Your task to perform on an android device: move a message to another label in the gmail app Image 0: 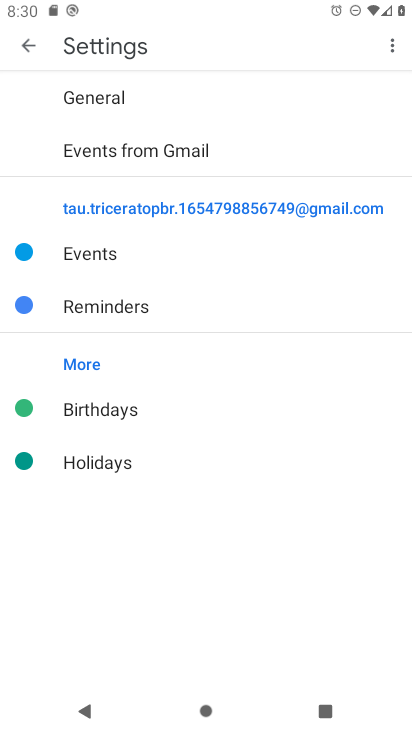
Step 0: press home button
Your task to perform on an android device: move a message to another label in the gmail app Image 1: 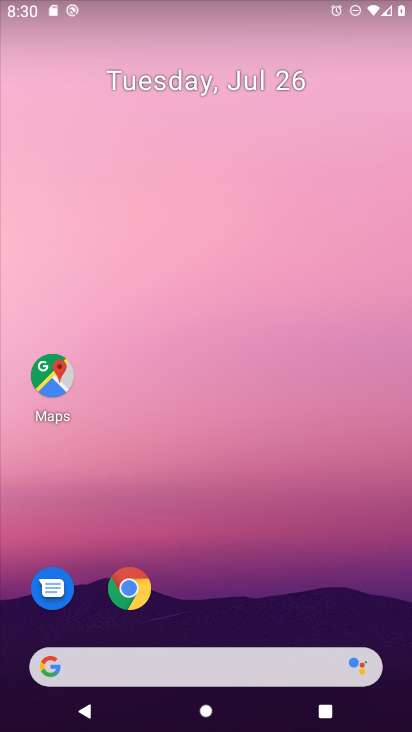
Step 1: drag from (227, 617) to (217, 213)
Your task to perform on an android device: move a message to another label in the gmail app Image 2: 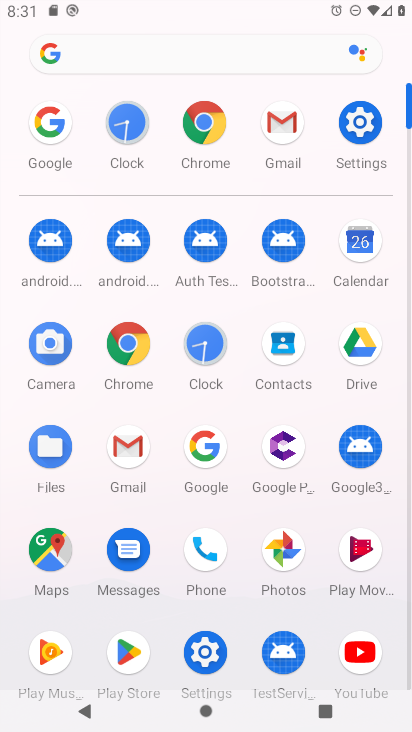
Step 2: click (131, 478)
Your task to perform on an android device: move a message to another label in the gmail app Image 3: 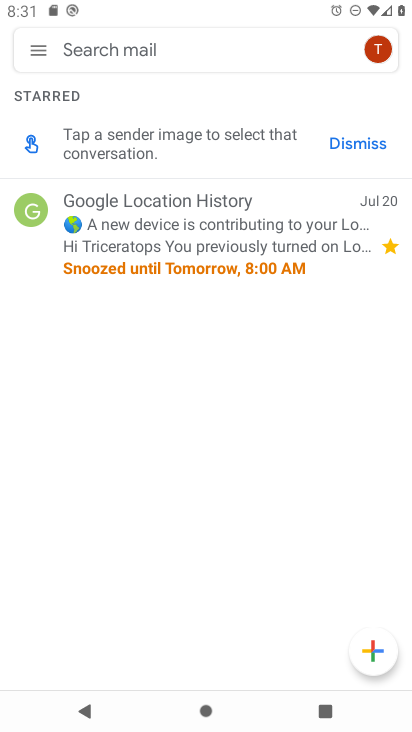
Step 3: click (221, 252)
Your task to perform on an android device: move a message to another label in the gmail app Image 4: 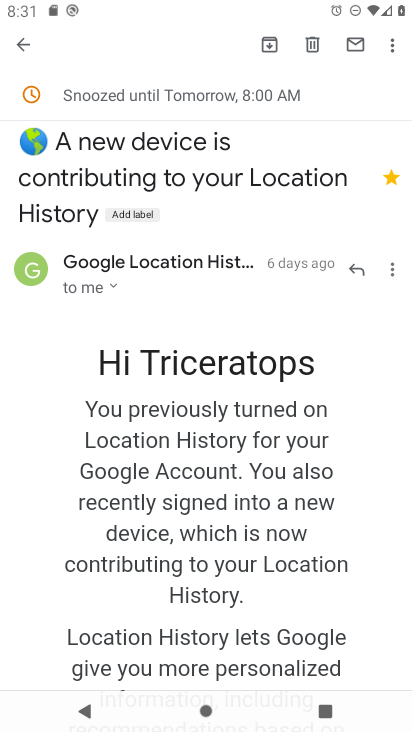
Step 4: click (395, 46)
Your task to perform on an android device: move a message to another label in the gmail app Image 5: 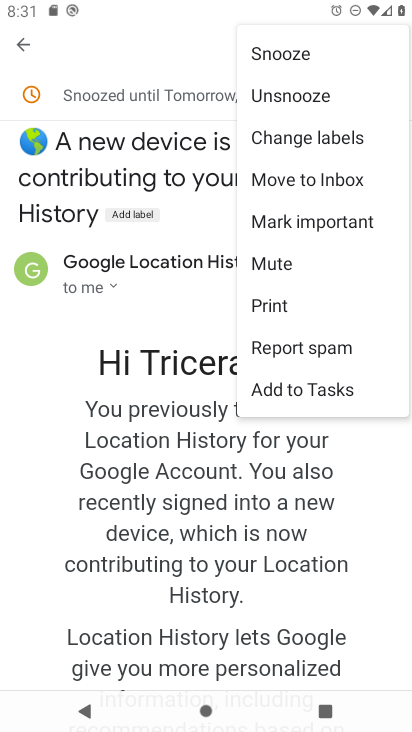
Step 5: click (318, 129)
Your task to perform on an android device: move a message to another label in the gmail app Image 6: 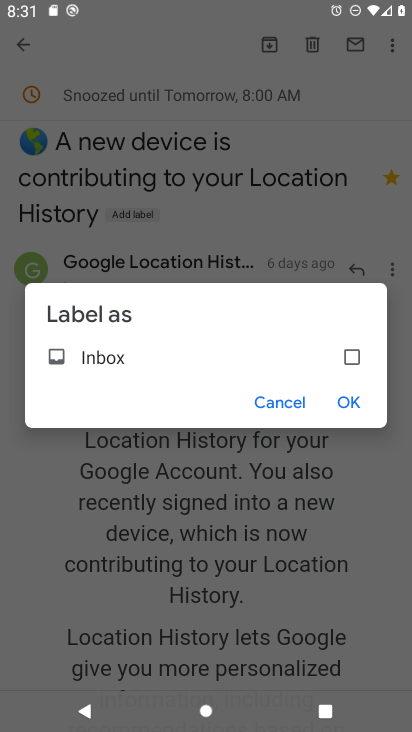
Step 6: click (353, 353)
Your task to perform on an android device: move a message to another label in the gmail app Image 7: 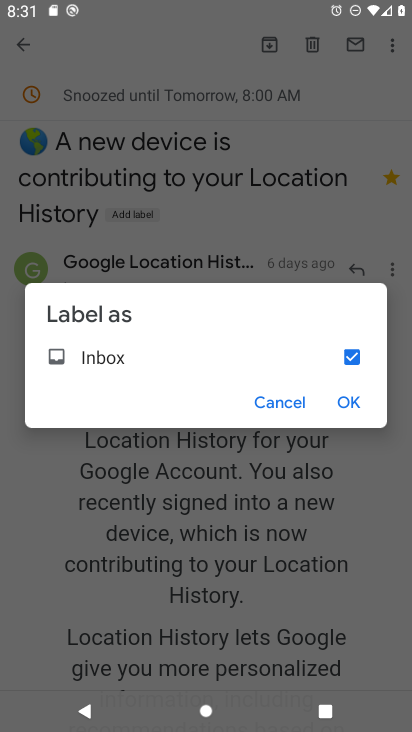
Step 7: click (352, 409)
Your task to perform on an android device: move a message to another label in the gmail app Image 8: 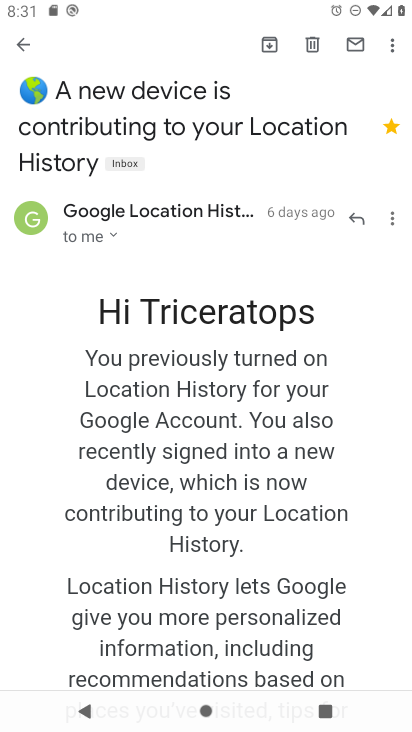
Step 8: task complete